Your task to perform on an android device: Open Google Maps and go to "Timeline" Image 0: 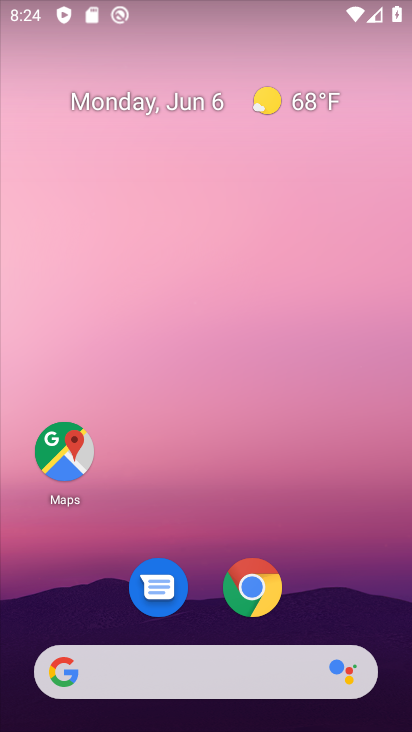
Step 0: click (50, 467)
Your task to perform on an android device: Open Google Maps and go to "Timeline" Image 1: 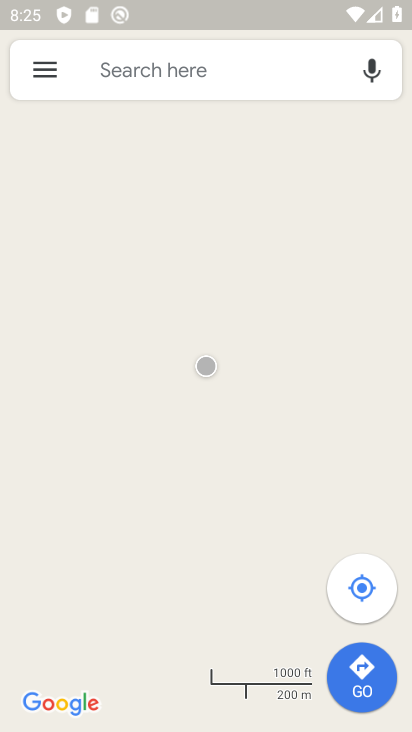
Step 1: click (44, 87)
Your task to perform on an android device: Open Google Maps and go to "Timeline" Image 2: 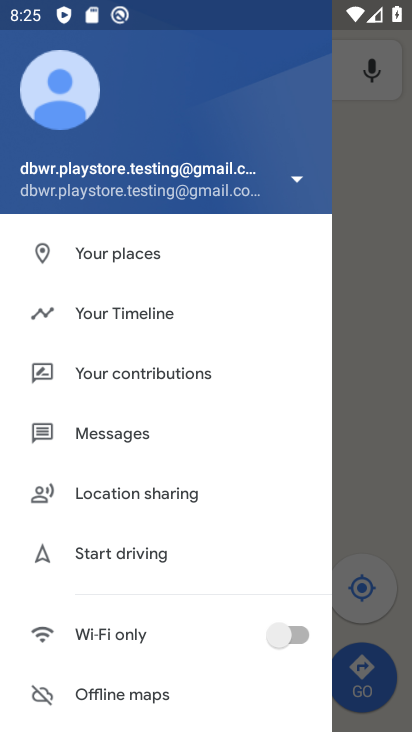
Step 2: click (166, 315)
Your task to perform on an android device: Open Google Maps and go to "Timeline" Image 3: 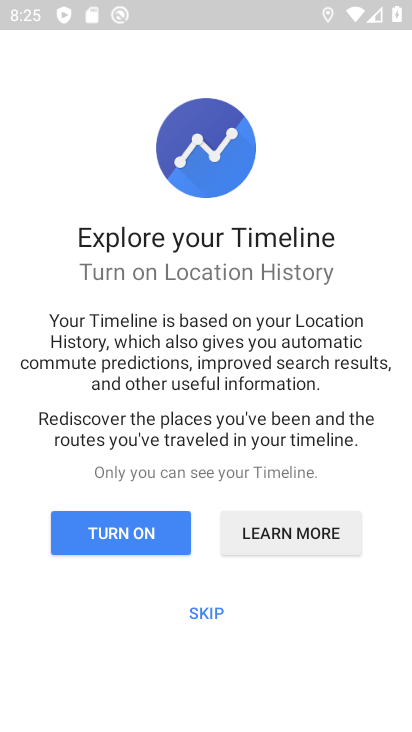
Step 3: click (142, 527)
Your task to perform on an android device: Open Google Maps and go to "Timeline" Image 4: 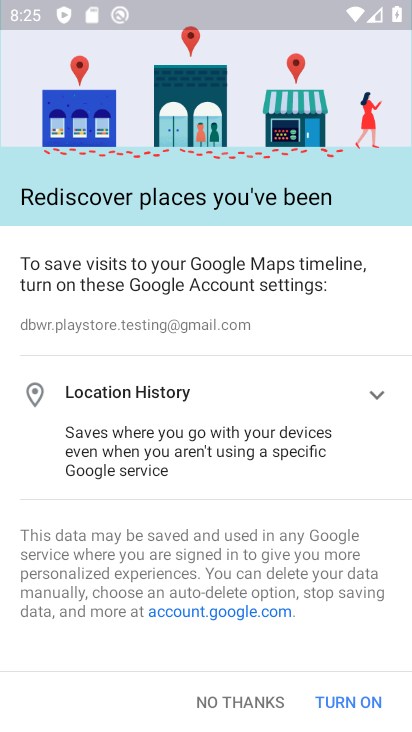
Step 4: task complete